Your task to perform on an android device: turn smart compose on in the gmail app Image 0: 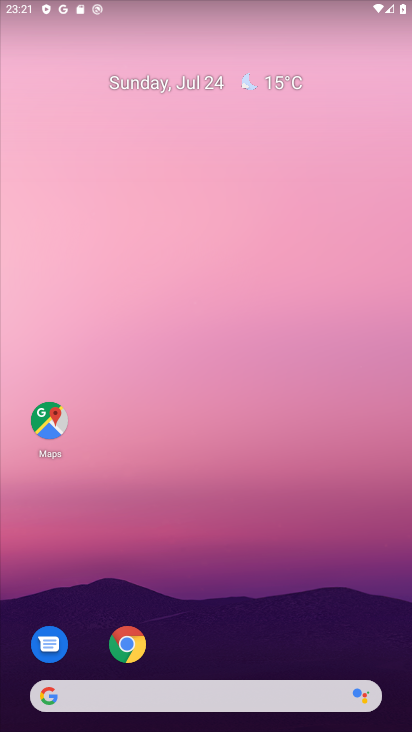
Step 0: drag from (193, 728) to (193, 122)
Your task to perform on an android device: turn smart compose on in the gmail app Image 1: 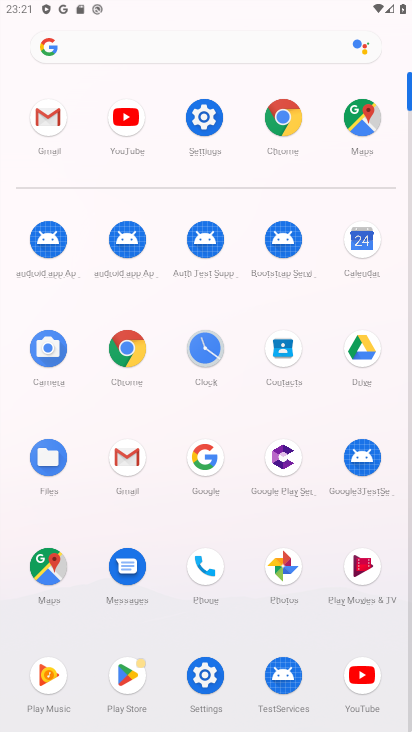
Step 1: click (119, 456)
Your task to perform on an android device: turn smart compose on in the gmail app Image 2: 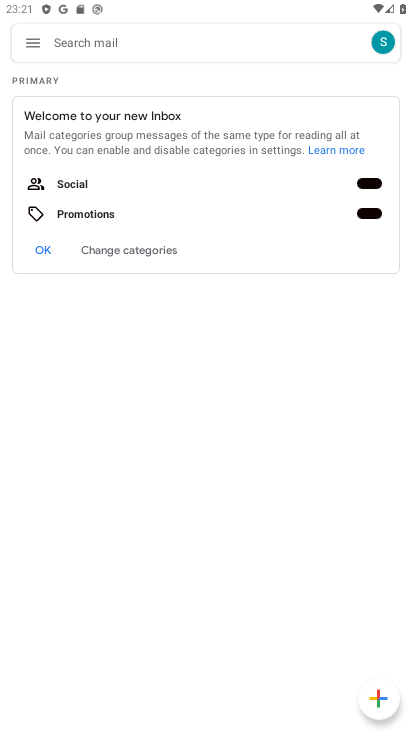
Step 2: click (31, 36)
Your task to perform on an android device: turn smart compose on in the gmail app Image 3: 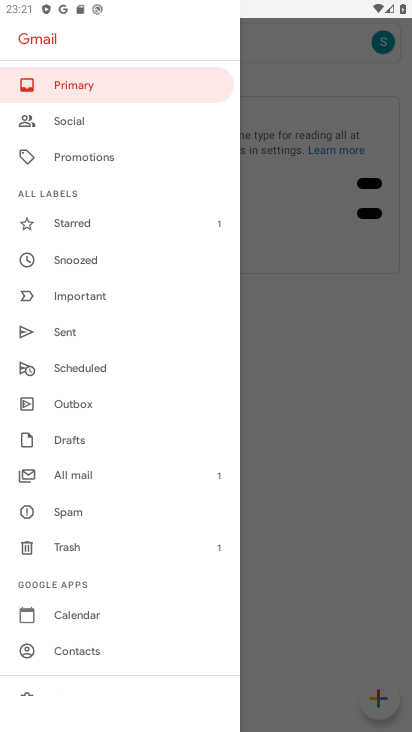
Step 3: click (76, 625)
Your task to perform on an android device: turn smart compose on in the gmail app Image 4: 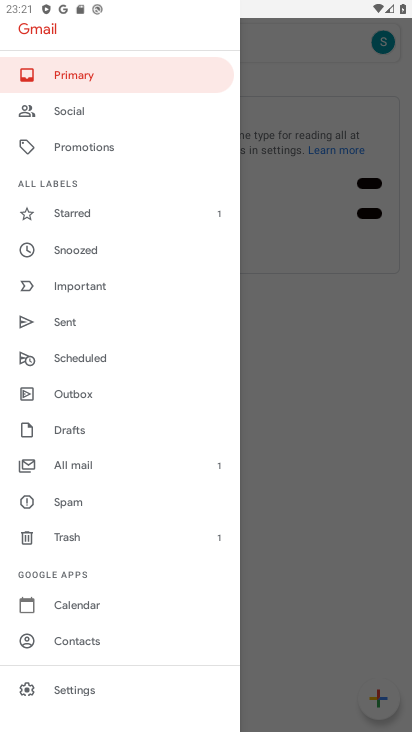
Step 4: click (79, 689)
Your task to perform on an android device: turn smart compose on in the gmail app Image 5: 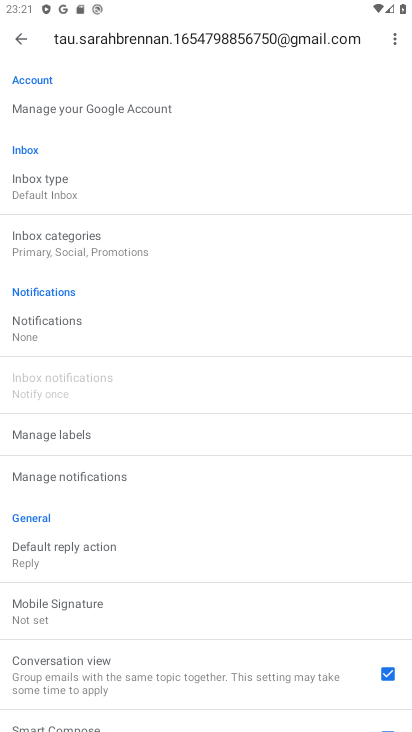
Step 5: task complete